Your task to perform on an android device: Open the web browser Image 0: 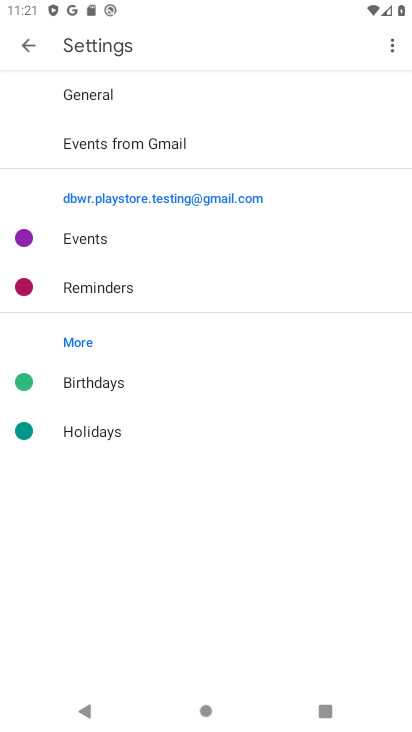
Step 0: press home button
Your task to perform on an android device: Open the web browser Image 1: 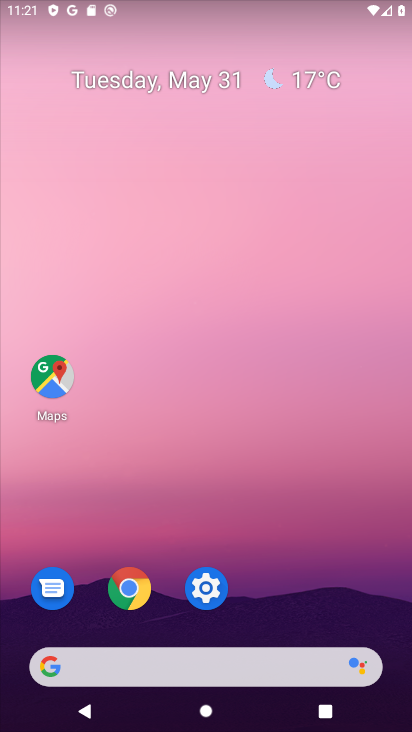
Step 1: click (139, 590)
Your task to perform on an android device: Open the web browser Image 2: 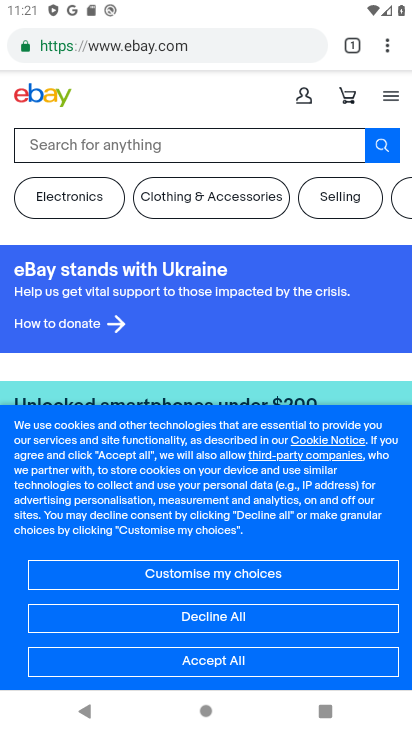
Step 2: click (177, 47)
Your task to perform on an android device: Open the web browser Image 3: 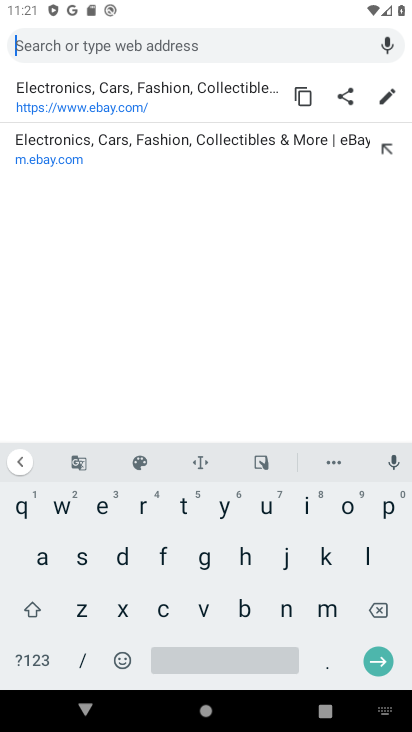
Step 3: task complete